Your task to perform on an android device: open app "AliExpress" Image 0: 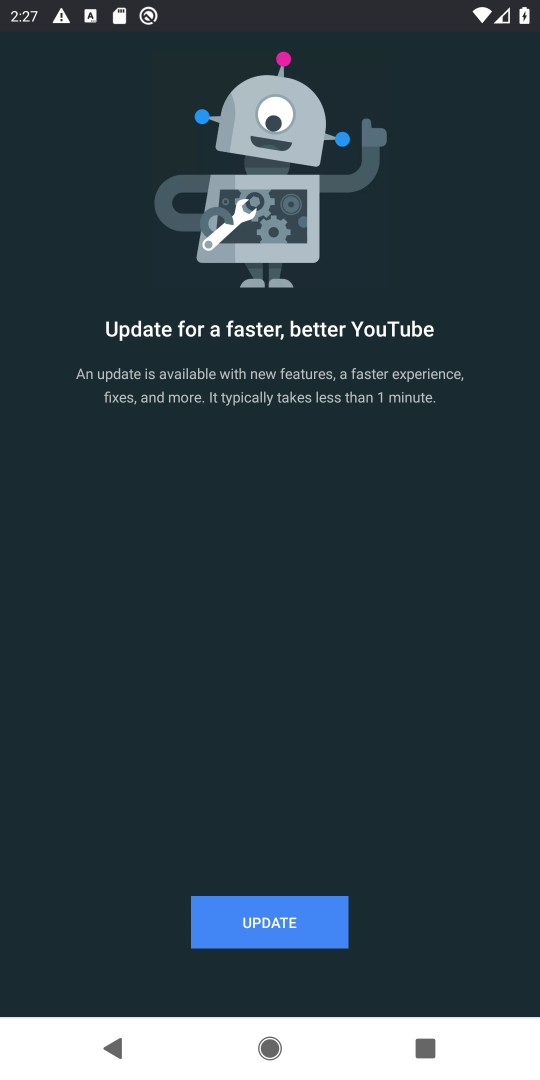
Step 0: press home button
Your task to perform on an android device: open app "AliExpress" Image 1: 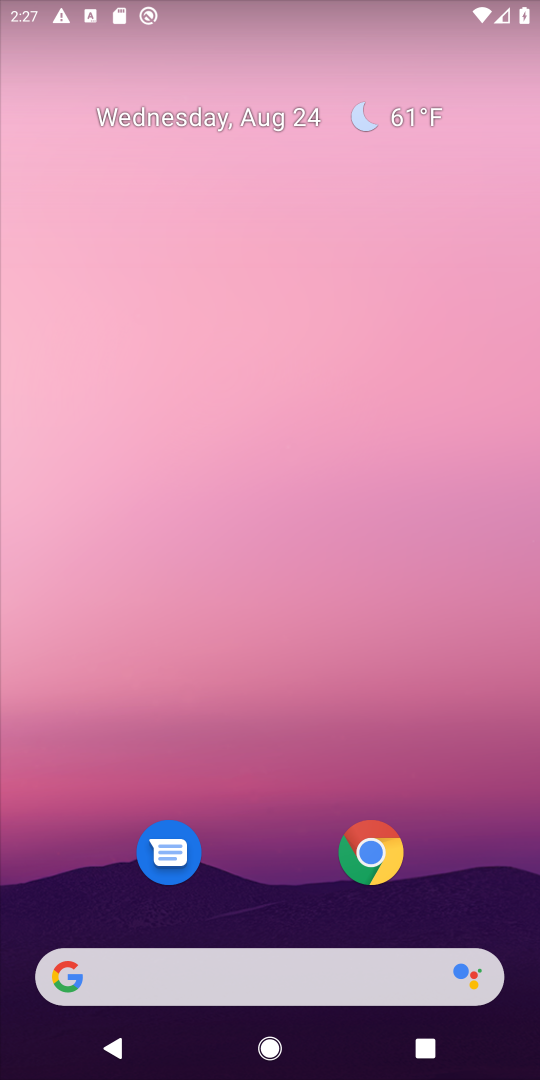
Step 1: drag from (280, 918) to (288, 135)
Your task to perform on an android device: open app "AliExpress" Image 2: 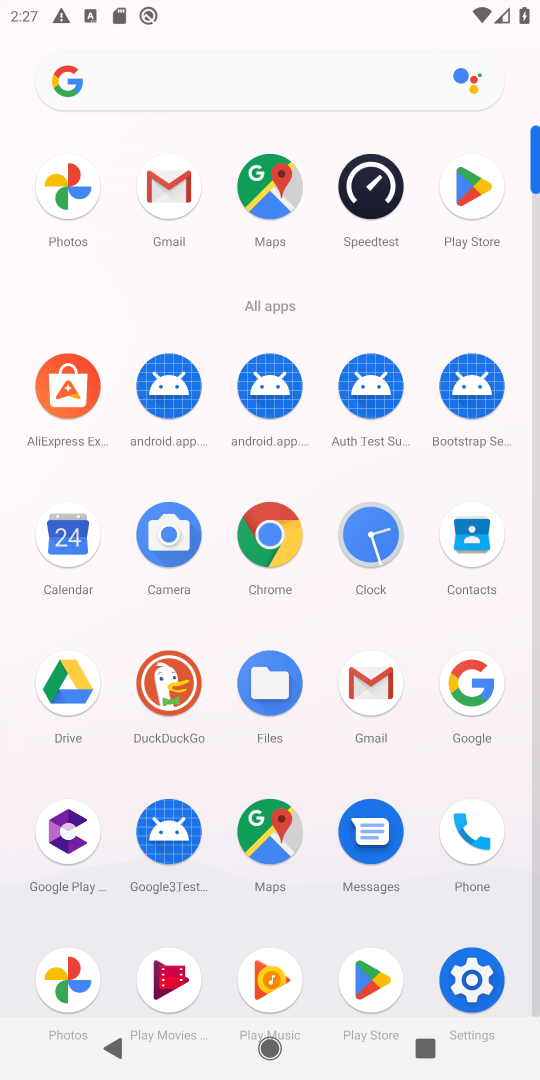
Step 2: click (469, 181)
Your task to perform on an android device: open app "AliExpress" Image 3: 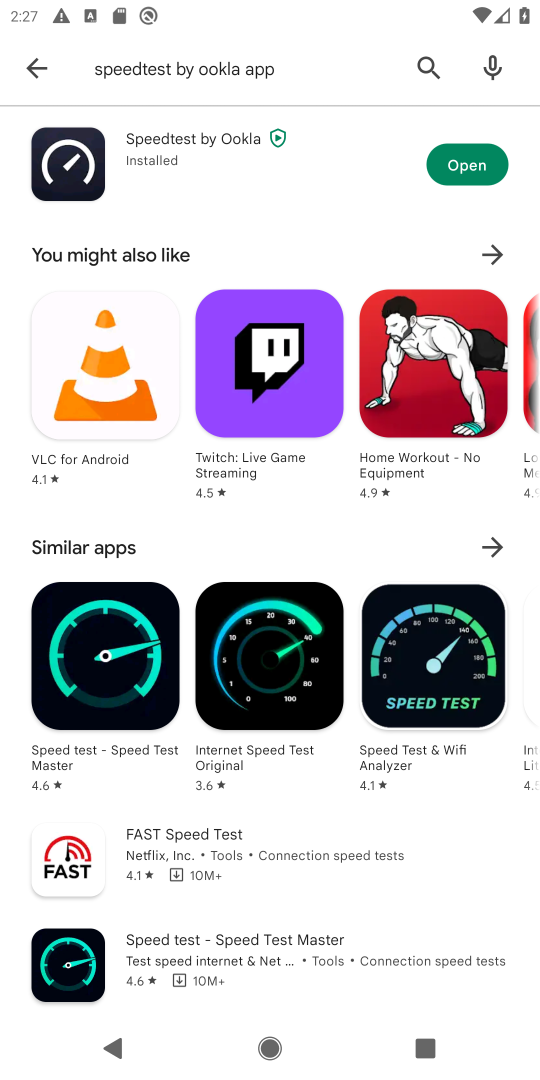
Step 3: click (427, 77)
Your task to perform on an android device: open app "AliExpress" Image 4: 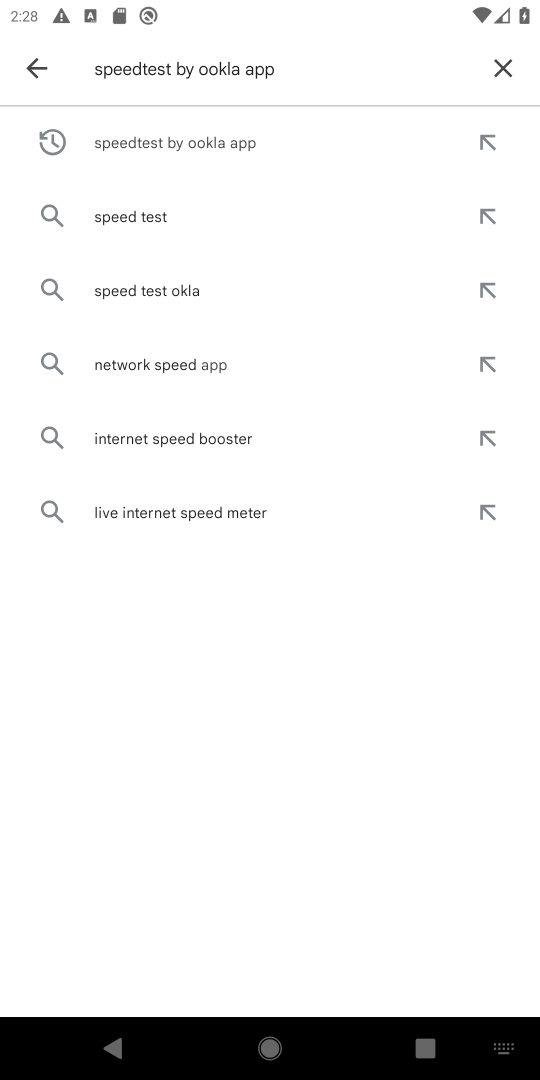
Step 4: click (509, 65)
Your task to perform on an android device: open app "AliExpress" Image 5: 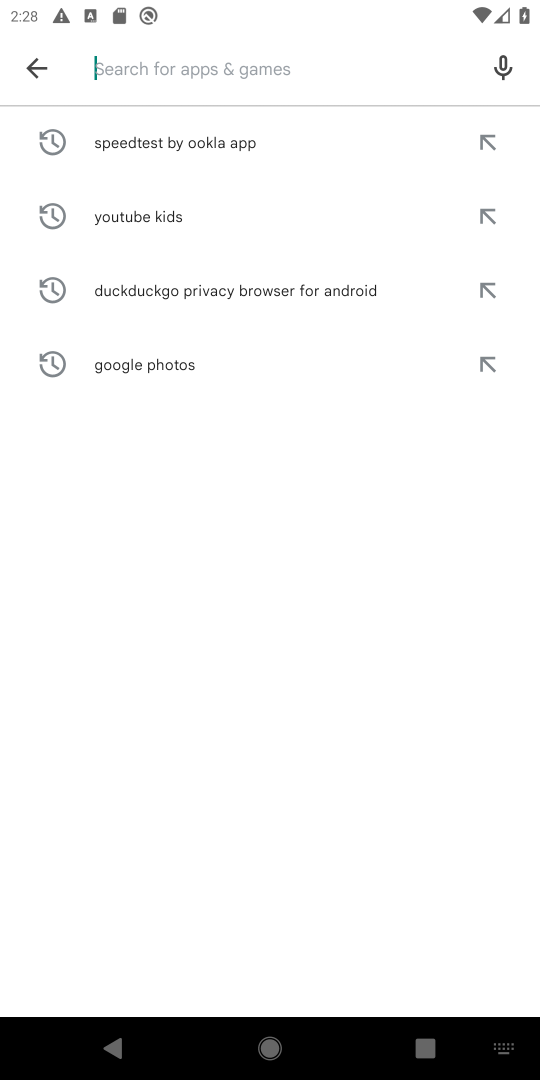
Step 5: type "AliExpress"
Your task to perform on an android device: open app "AliExpress" Image 6: 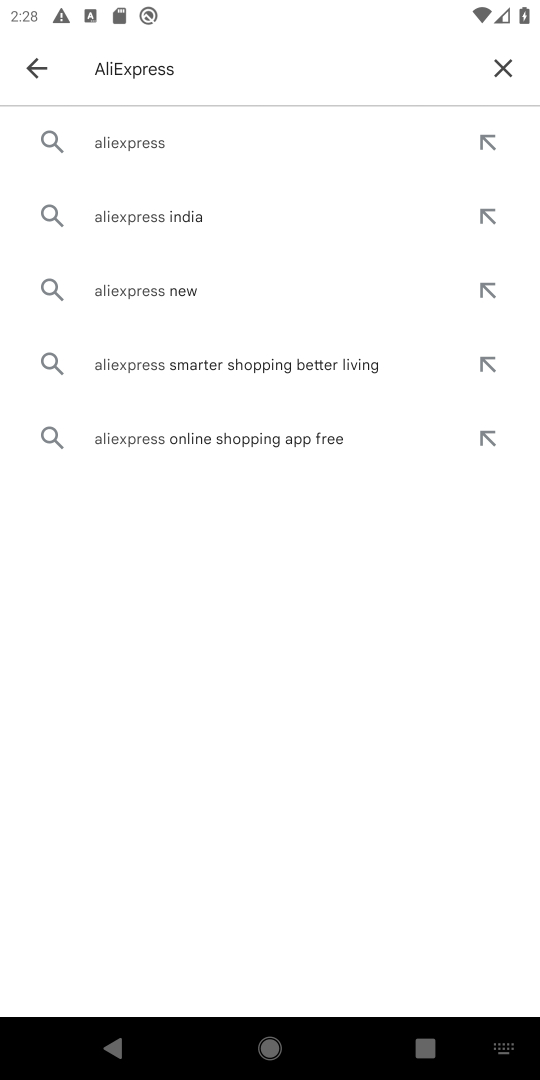
Step 6: click (181, 141)
Your task to perform on an android device: open app "AliExpress" Image 7: 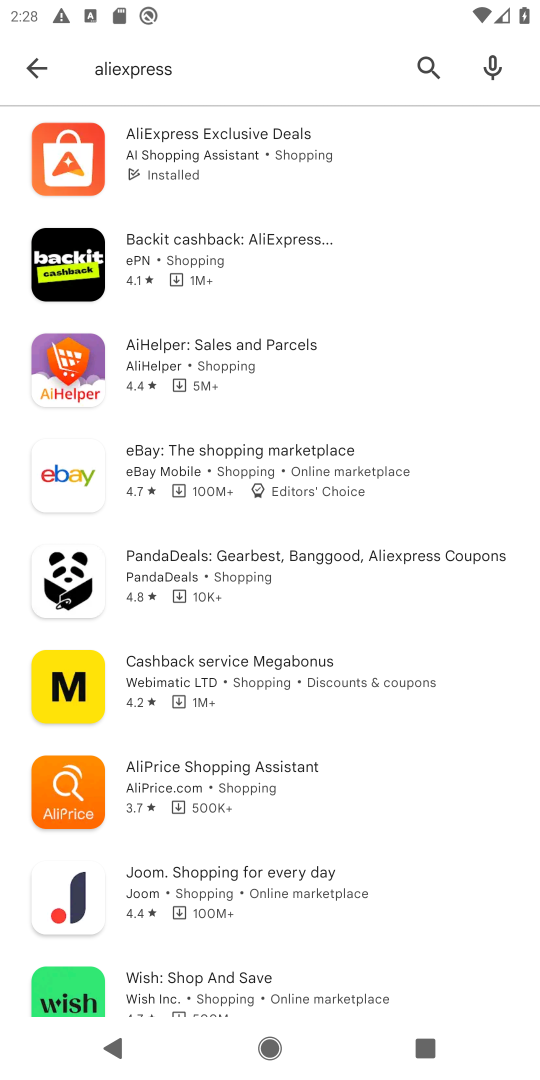
Step 7: click (253, 159)
Your task to perform on an android device: open app "AliExpress" Image 8: 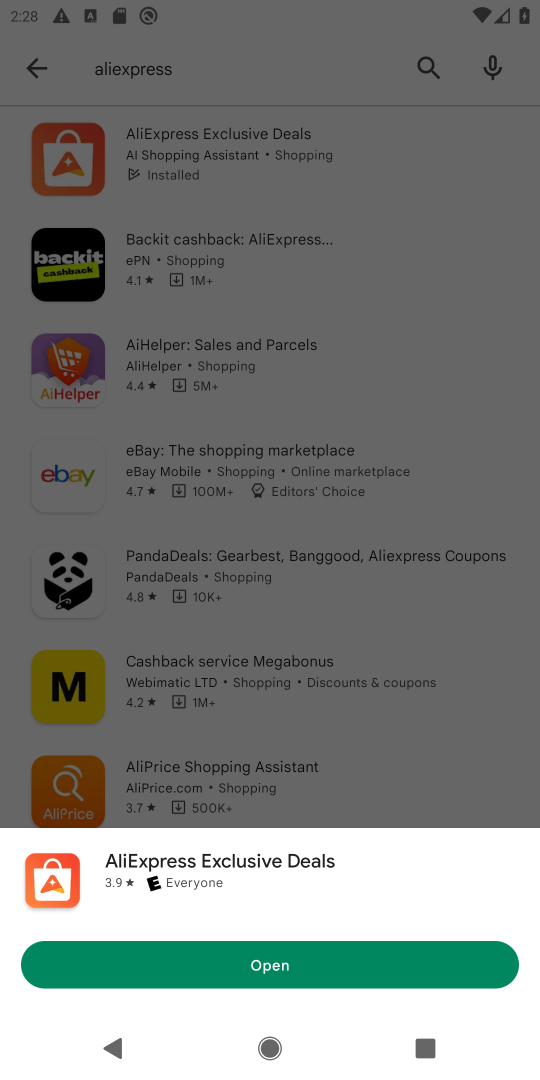
Step 8: task complete